Your task to perform on an android device: Go to Reddit.com Image 0: 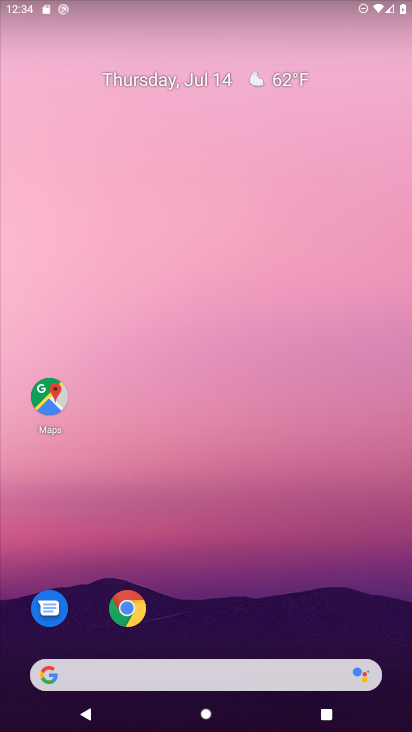
Step 0: click (129, 605)
Your task to perform on an android device: Go to Reddit.com Image 1: 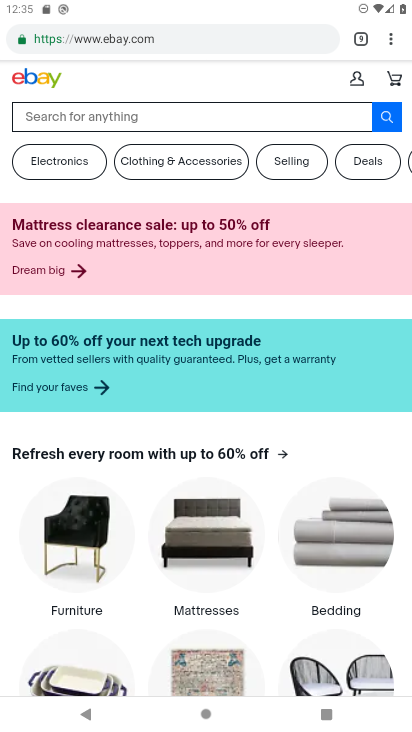
Step 1: click (392, 40)
Your task to perform on an android device: Go to Reddit.com Image 2: 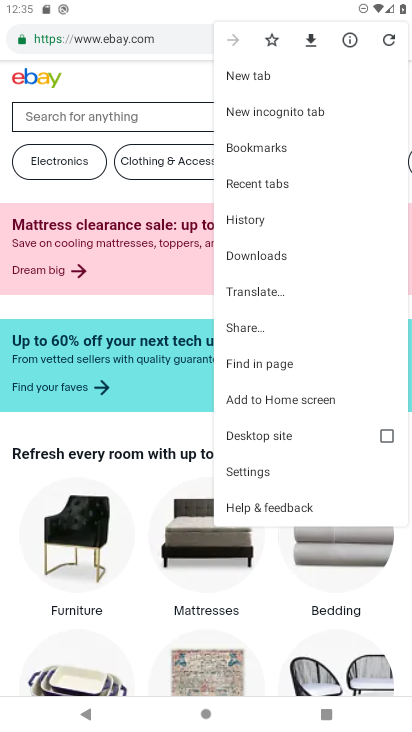
Step 2: click (251, 72)
Your task to perform on an android device: Go to Reddit.com Image 3: 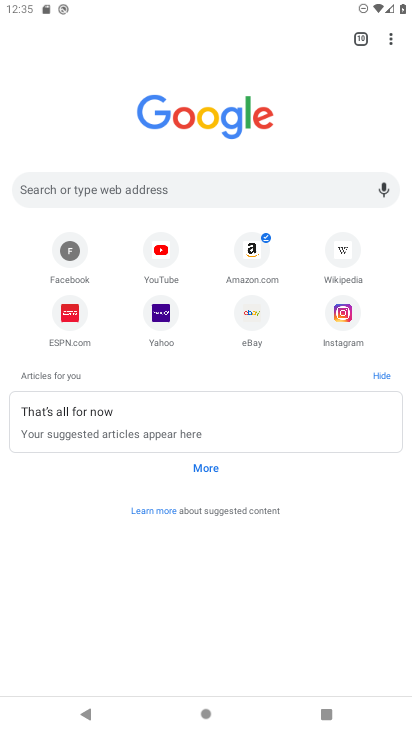
Step 3: click (197, 192)
Your task to perform on an android device: Go to Reddit.com Image 4: 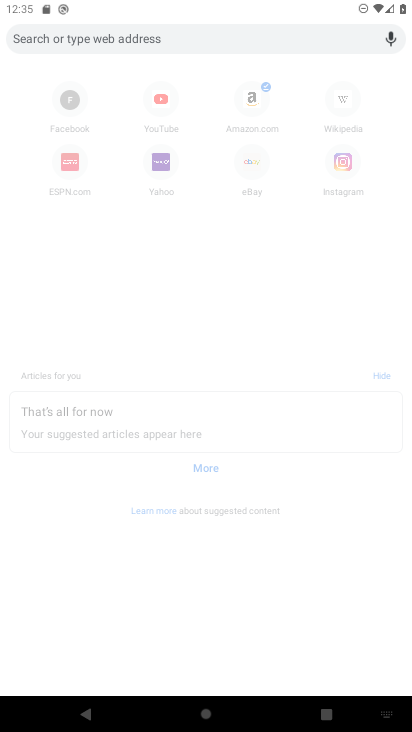
Step 4: type "reddit.com"
Your task to perform on an android device: Go to Reddit.com Image 5: 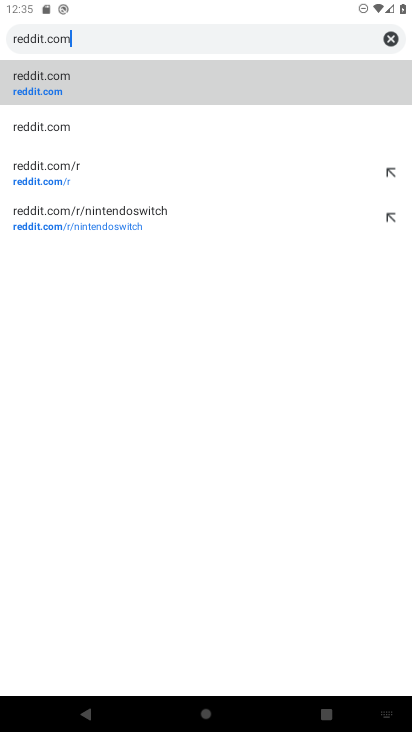
Step 5: click (57, 76)
Your task to perform on an android device: Go to Reddit.com Image 6: 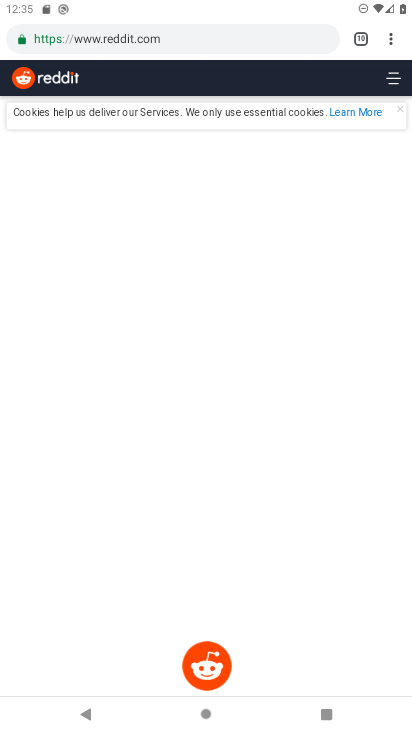
Step 6: task complete